Your task to perform on an android device: Open location settings Image 0: 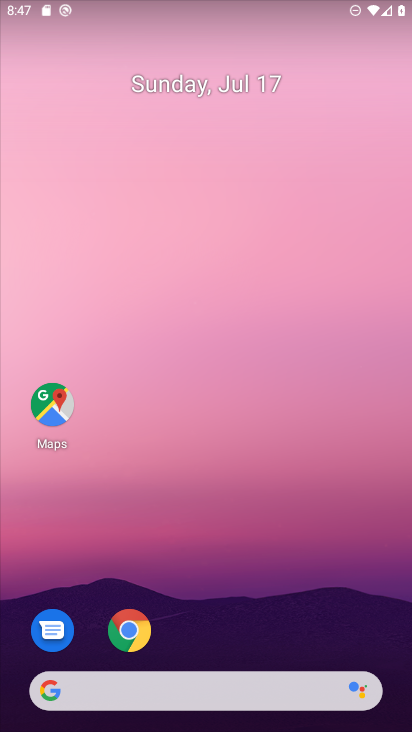
Step 0: drag from (378, 613) to (220, 69)
Your task to perform on an android device: Open location settings Image 1: 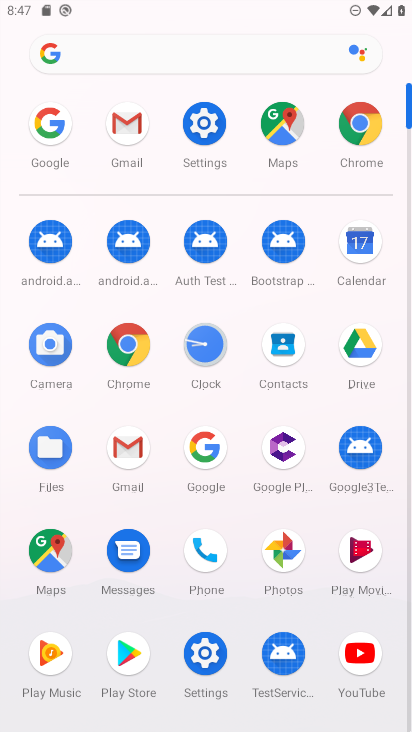
Step 1: click (198, 137)
Your task to perform on an android device: Open location settings Image 2: 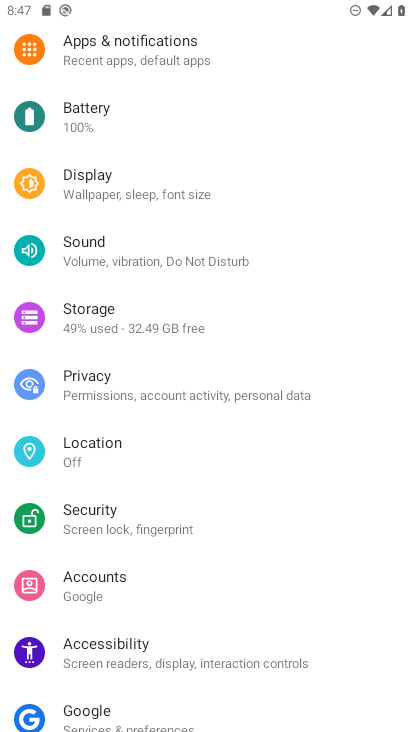
Step 2: click (104, 461)
Your task to perform on an android device: Open location settings Image 3: 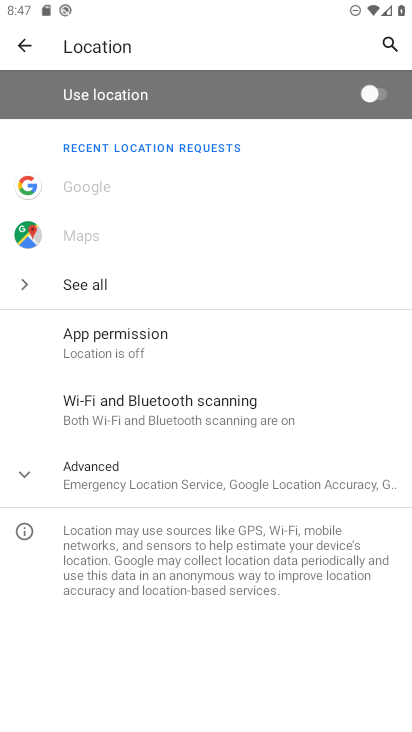
Step 3: task complete